Your task to perform on an android device: toggle show notifications on the lock screen Image 0: 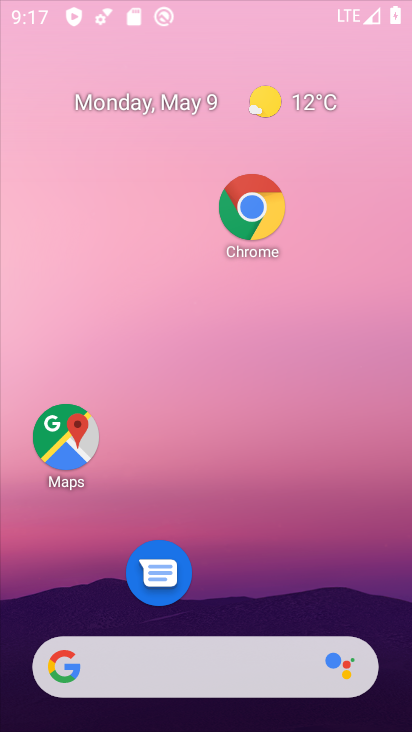
Step 0: drag from (285, 634) to (309, 231)
Your task to perform on an android device: toggle show notifications on the lock screen Image 1: 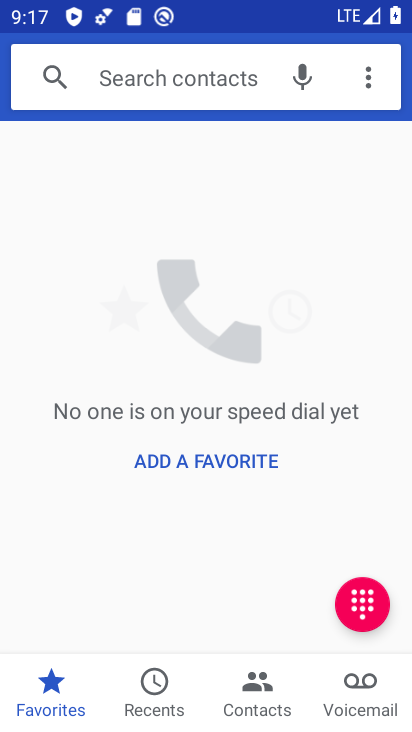
Step 1: press home button
Your task to perform on an android device: toggle show notifications on the lock screen Image 2: 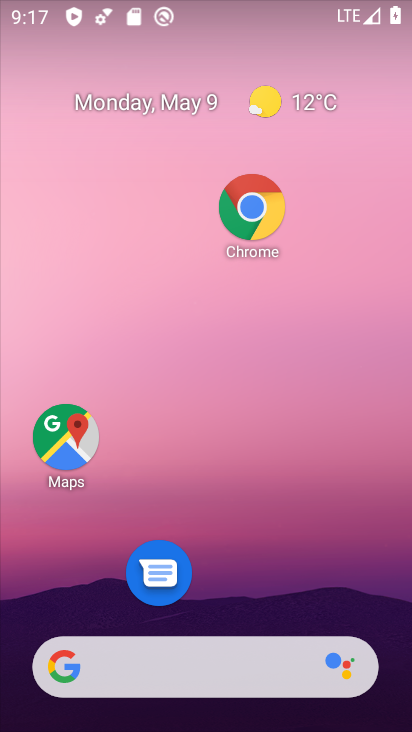
Step 2: drag from (218, 654) to (283, 269)
Your task to perform on an android device: toggle show notifications on the lock screen Image 3: 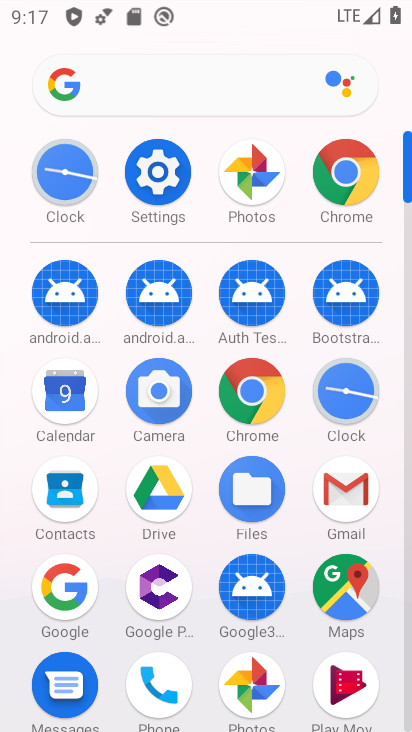
Step 3: click (159, 187)
Your task to perform on an android device: toggle show notifications on the lock screen Image 4: 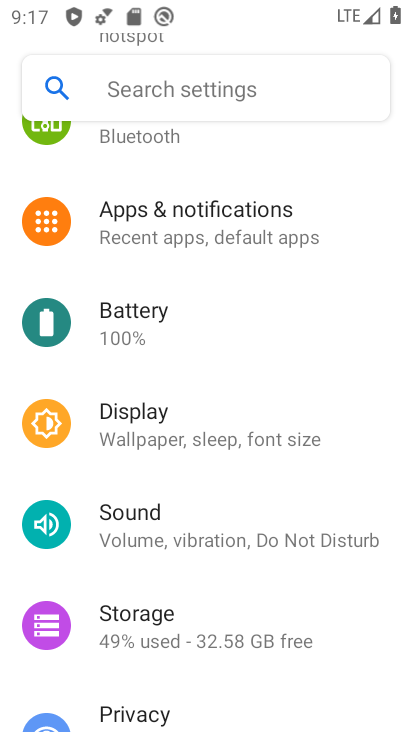
Step 4: click (225, 219)
Your task to perform on an android device: toggle show notifications on the lock screen Image 5: 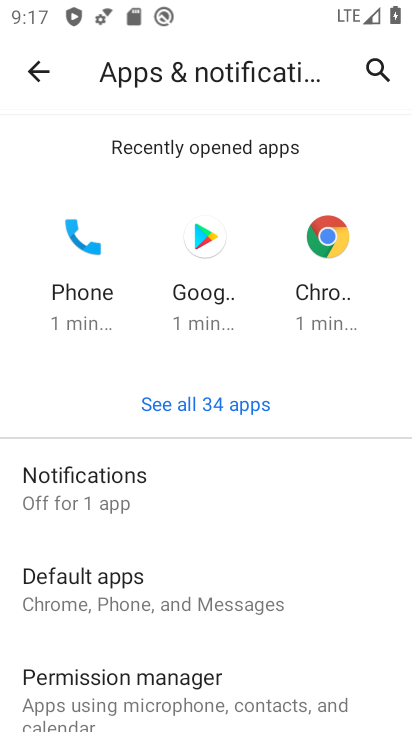
Step 5: click (185, 489)
Your task to perform on an android device: toggle show notifications on the lock screen Image 6: 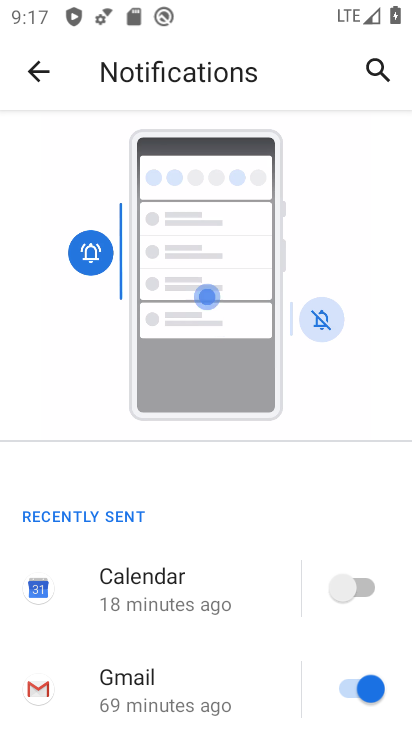
Step 6: drag from (180, 627) to (185, 307)
Your task to perform on an android device: toggle show notifications on the lock screen Image 7: 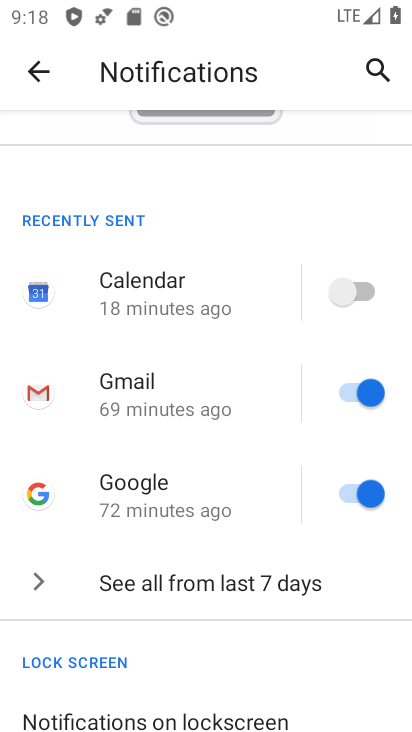
Step 7: drag from (188, 571) to (224, 324)
Your task to perform on an android device: toggle show notifications on the lock screen Image 8: 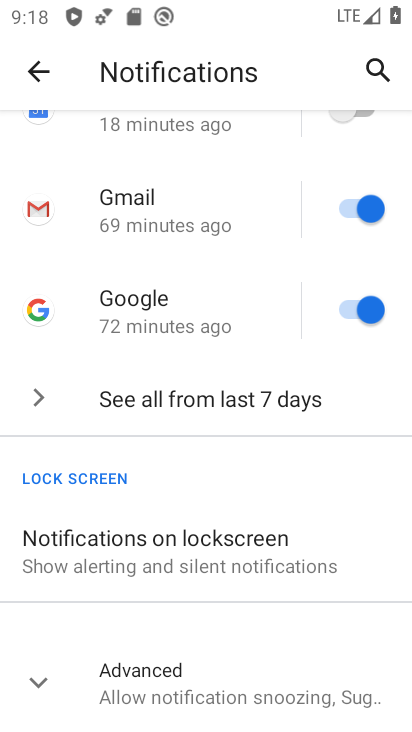
Step 8: click (215, 546)
Your task to perform on an android device: toggle show notifications on the lock screen Image 9: 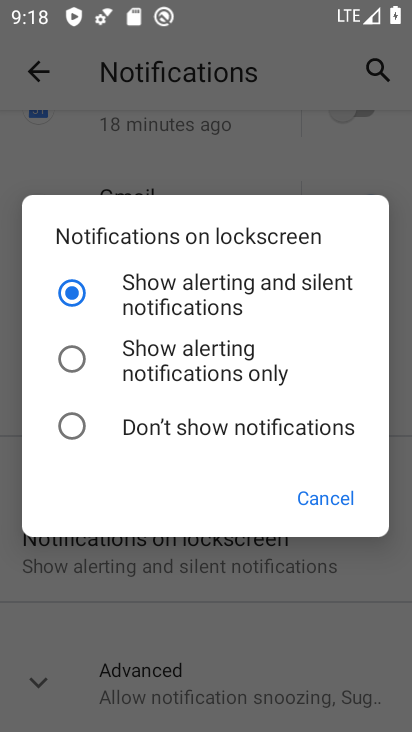
Step 9: click (202, 426)
Your task to perform on an android device: toggle show notifications on the lock screen Image 10: 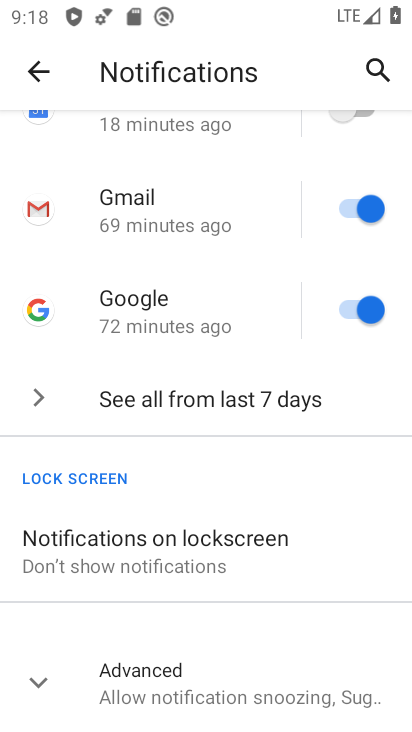
Step 10: task complete